Your task to perform on an android device: Clear the cart on ebay.com. Search for macbook pro on ebay.com, select the first entry, and add it to the cart. Image 0: 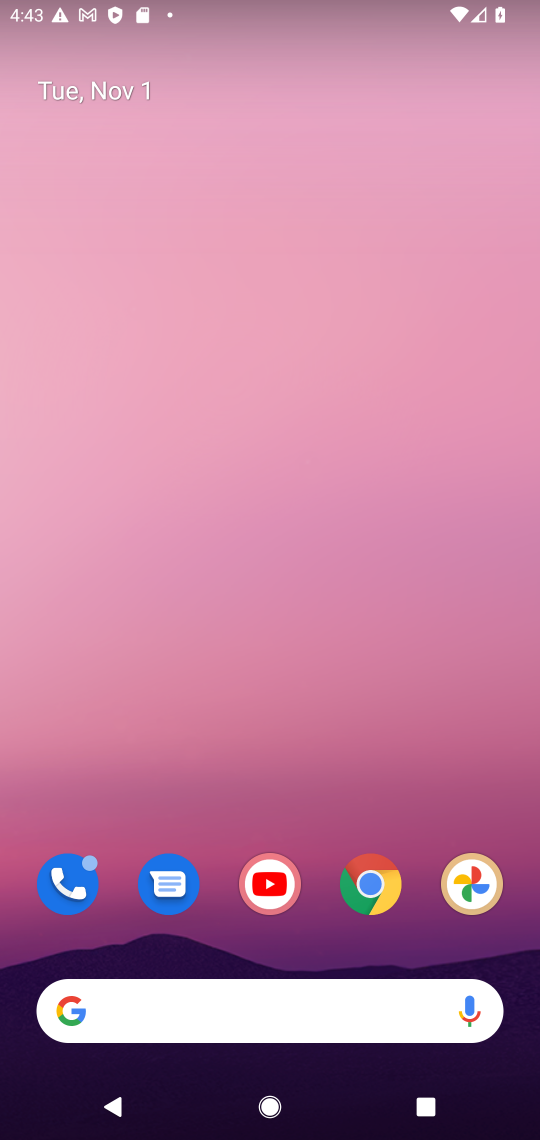
Step 0: click (382, 877)
Your task to perform on an android device: Clear the cart on ebay.com. Search for macbook pro on ebay.com, select the first entry, and add it to the cart. Image 1: 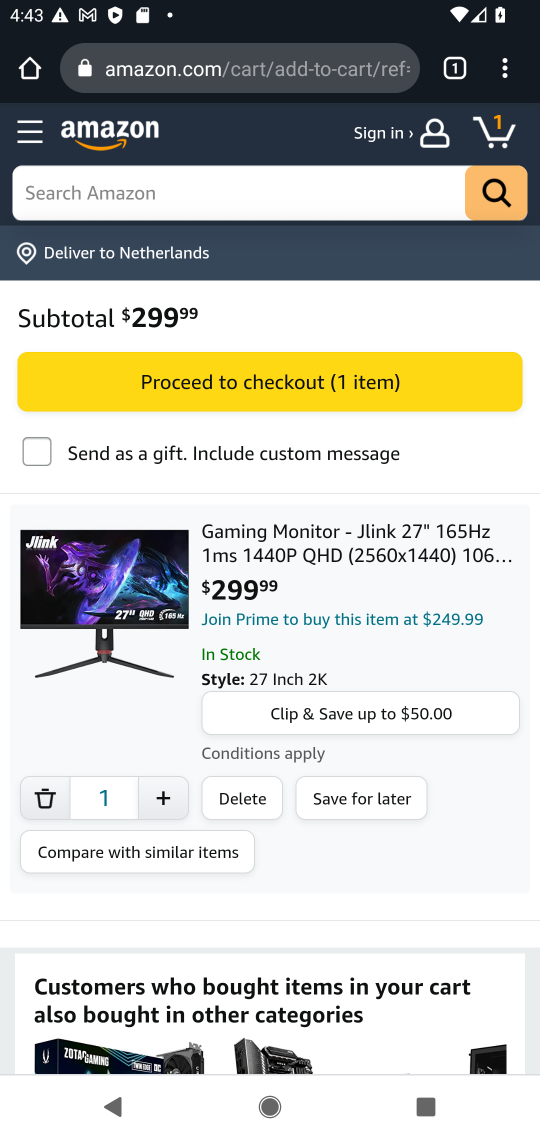
Step 1: click (241, 52)
Your task to perform on an android device: Clear the cart on ebay.com. Search for macbook pro on ebay.com, select the first entry, and add it to the cart. Image 2: 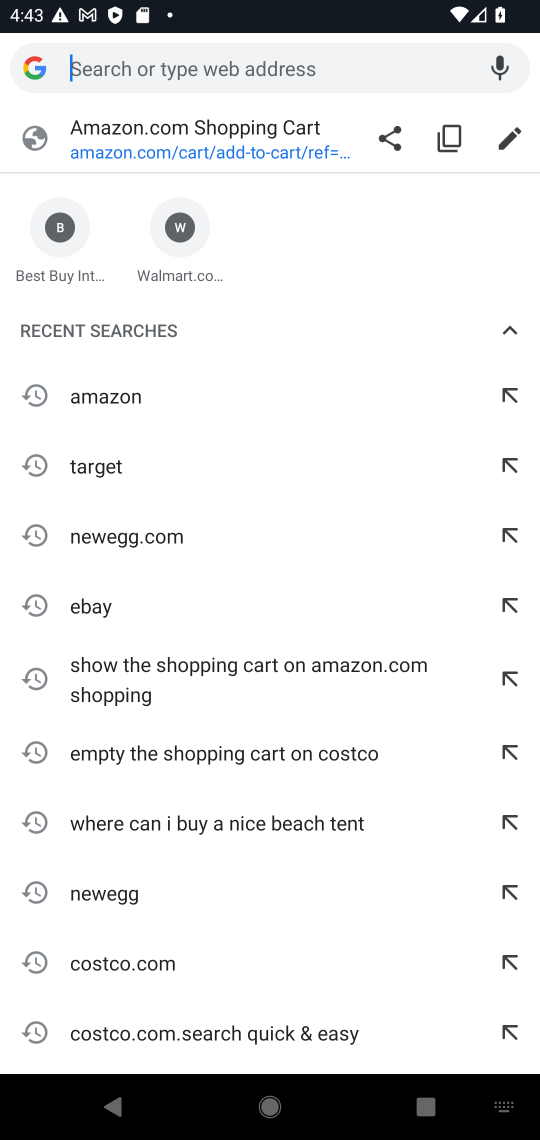
Step 2: type "ebay.com"
Your task to perform on an android device: Clear the cart on ebay.com. Search for macbook pro on ebay.com, select the first entry, and add it to the cart. Image 3: 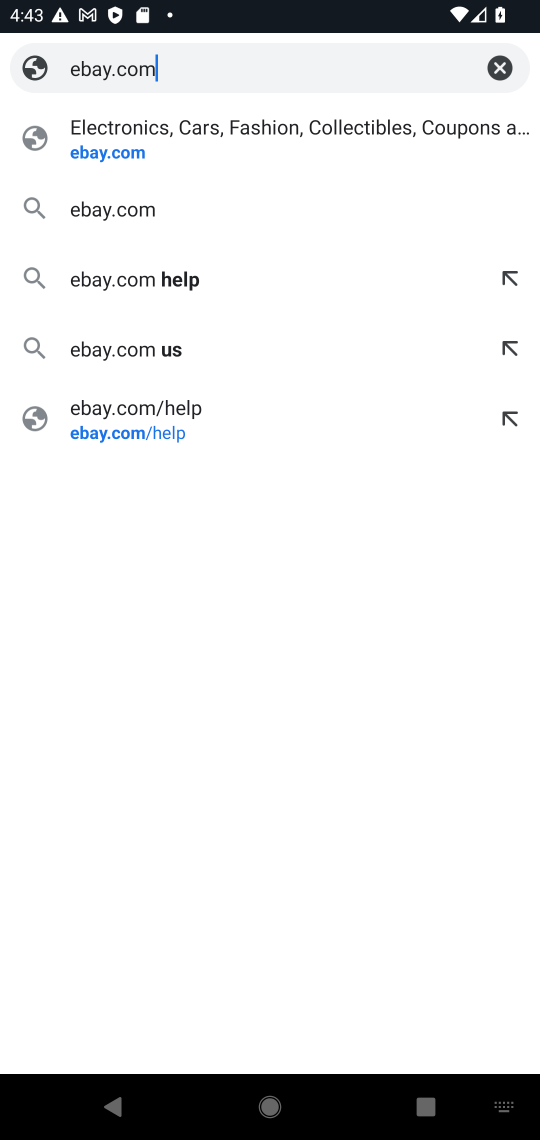
Step 3: click (251, 140)
Your task to perform on an android device: Clear the cart on ebay.com. Search for macbook pro on ebay.com, select the first entry, and add it to the cart. Image 4: 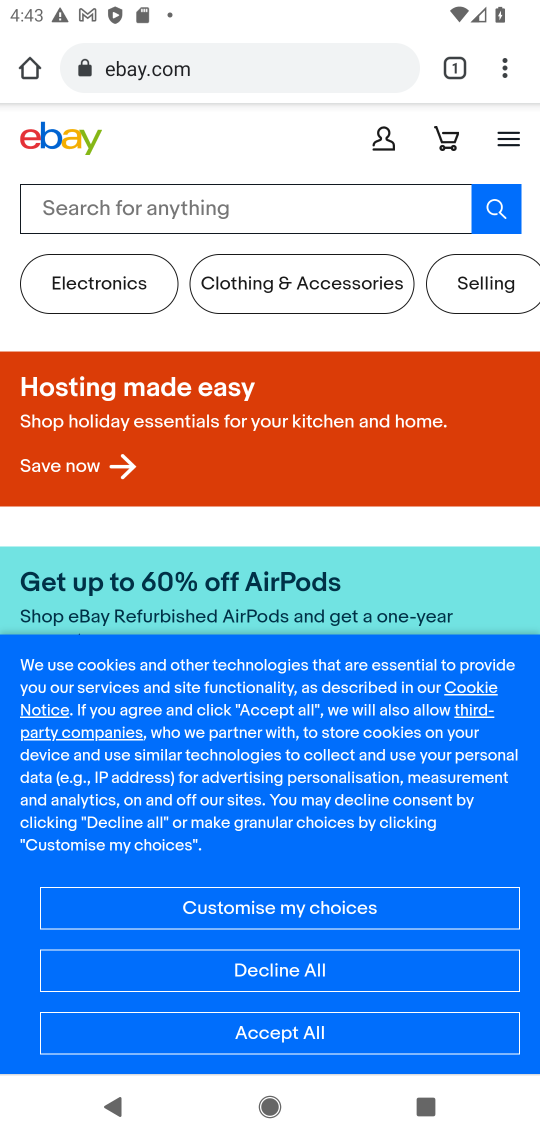
Step 4: click (372, 1030)
Your task to perform on an android device: Clear the cart on ebay.com. Search for macbook pro on ebay.com, select the first entry, and add it to the cart. Image 5: 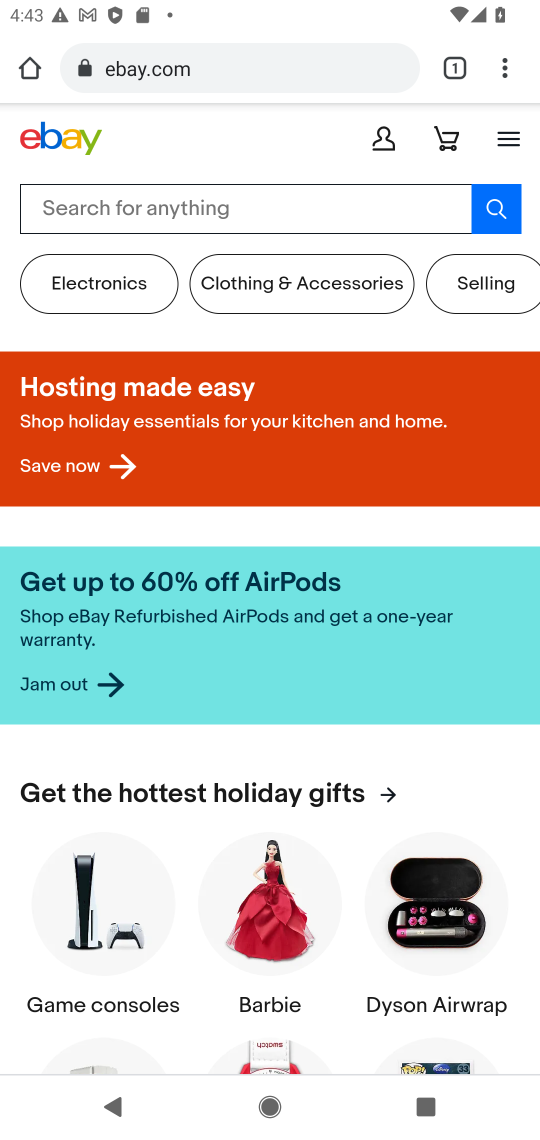
Step 5: click (428, 134)
Your task to perform on an android device: Clear the cart on ebay.com. Search for macbook pro on ebay.com, select the first entry, and add it to the cart. Image 6: 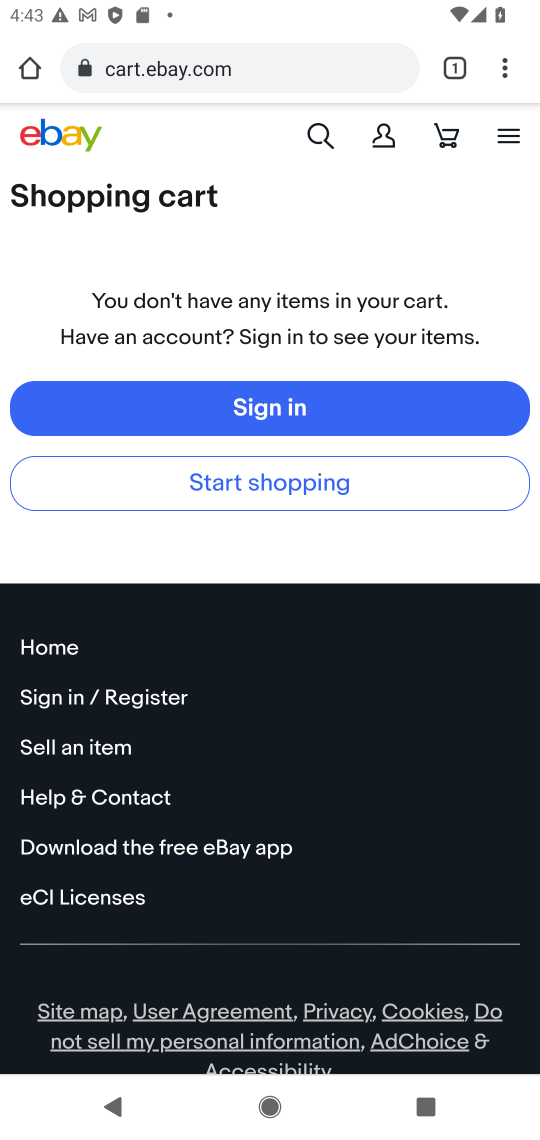
Step 6: click (311, 121)
Your task to perform on an android device: Clear the cart on ebay.com. Search for macbook pro on ebay.com, select the first entry, and add it to the cart. Image 7: 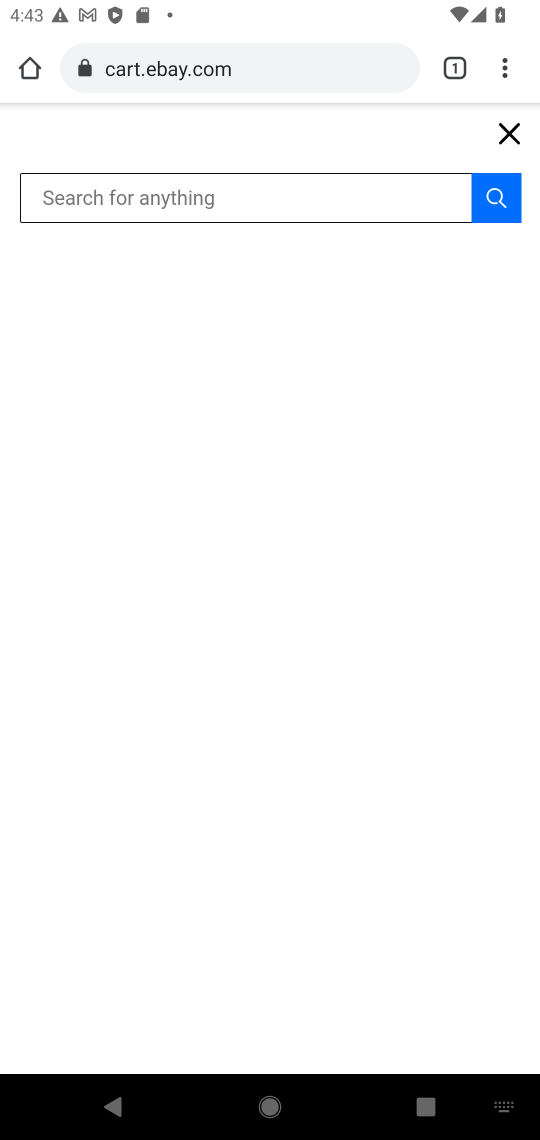
Step 7: type "macbook pro"
Your task to perform on an android device: Clear the cart on ebay.com. Search for macbook pro on ebay.com, select the first entry, and add it to the cart. Image 8: 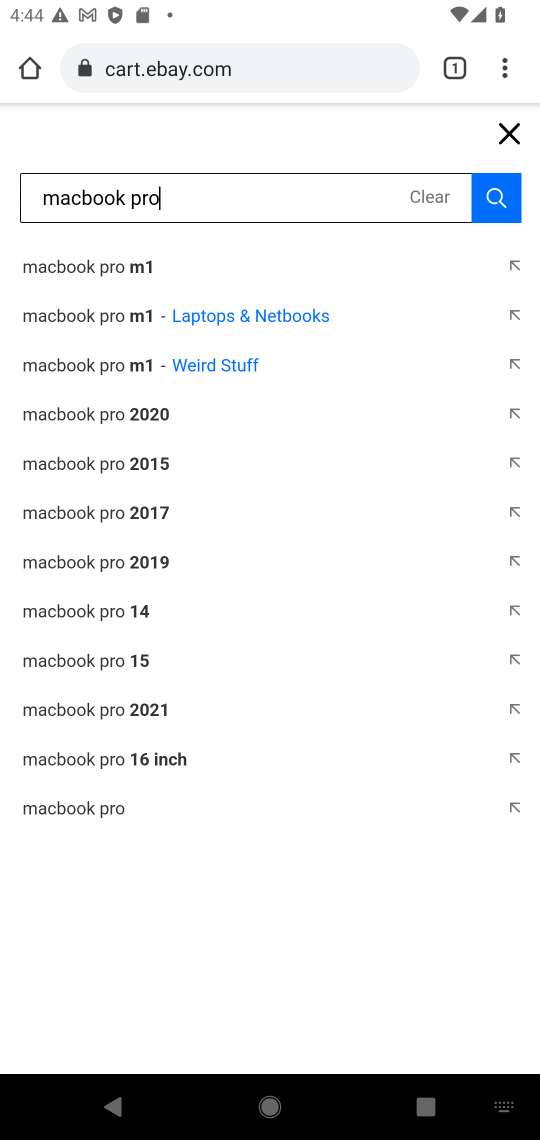
Step 8: click (487, 191)
Your task to perform on an android device: Clear the cart on ebay.com. Search for macbook pro on ebay.com, select the first entry, and add it to the cart. Image 9: 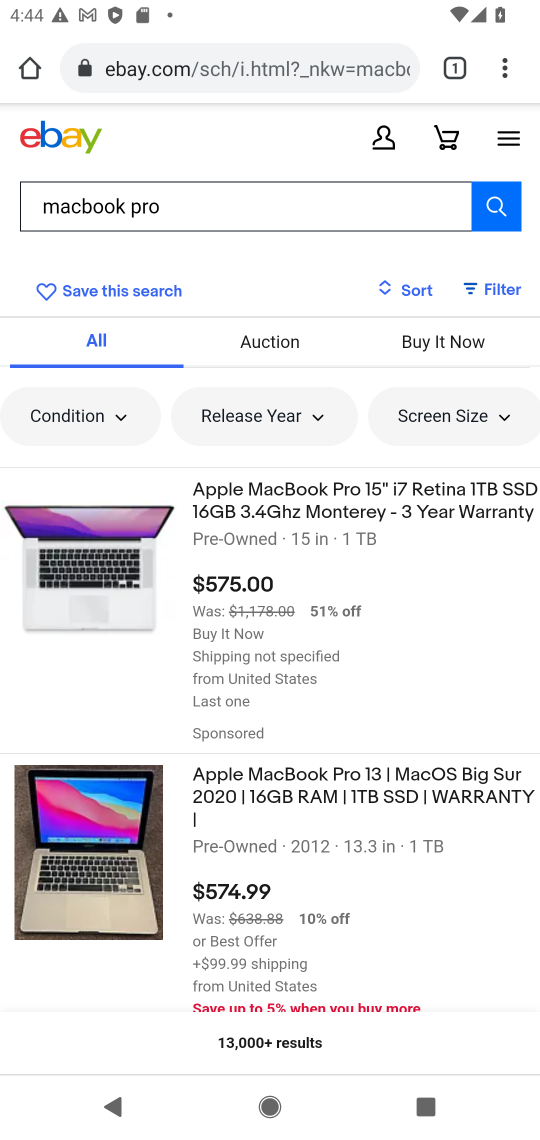
Step 9: click (282, 530)
Your task to perform on an android device: Clear the cart on ebay.com. Search for macbook pro on ebay.com, select the first entry, and add it to the cart. Image 10: 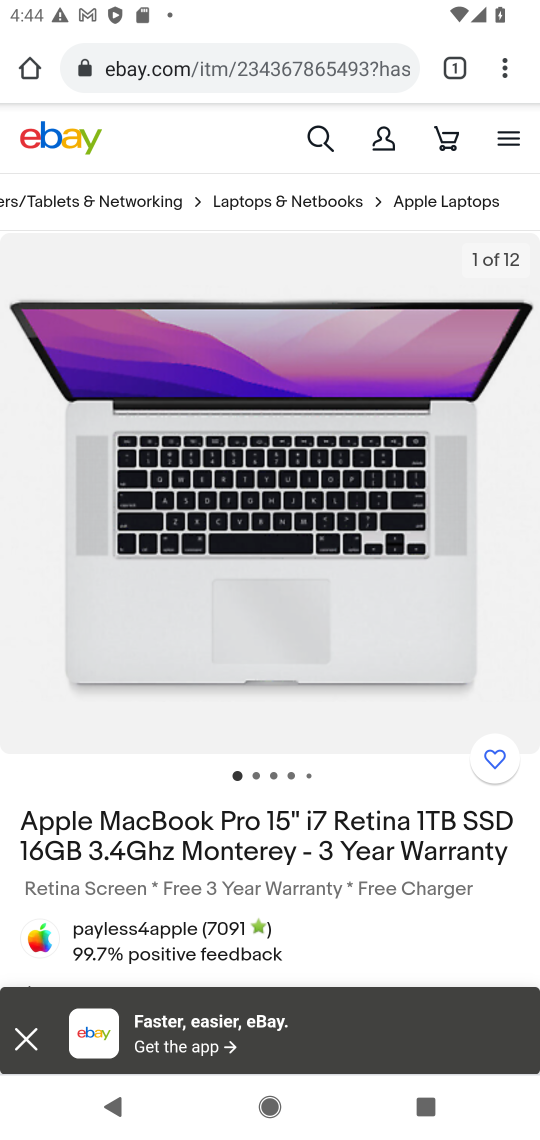
Step 10: drag from (269, 963) to (273, 641)
Your task to perform on an android device: Clear the cart on ebay.com. Search for macbook pro on ebay.com, select the first entry, and add it to the cart. Image 11: 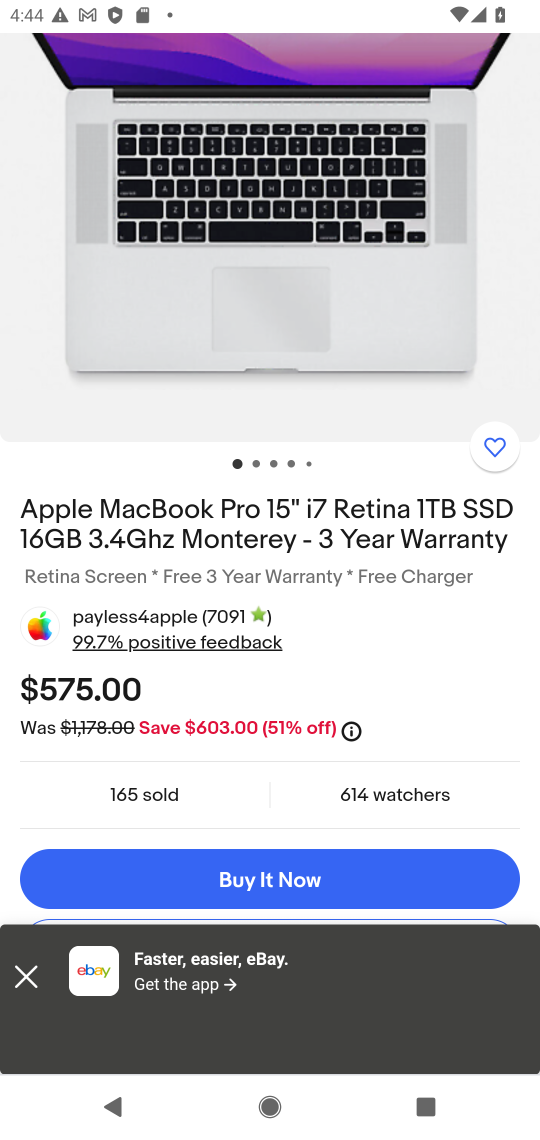
Step 11: click (25, 974)
Your task to perform on an android device: Clear the cart on ebay.com. Search for macbook pro on ebay.com, select the first entry, and add it to the cart. Image 12: 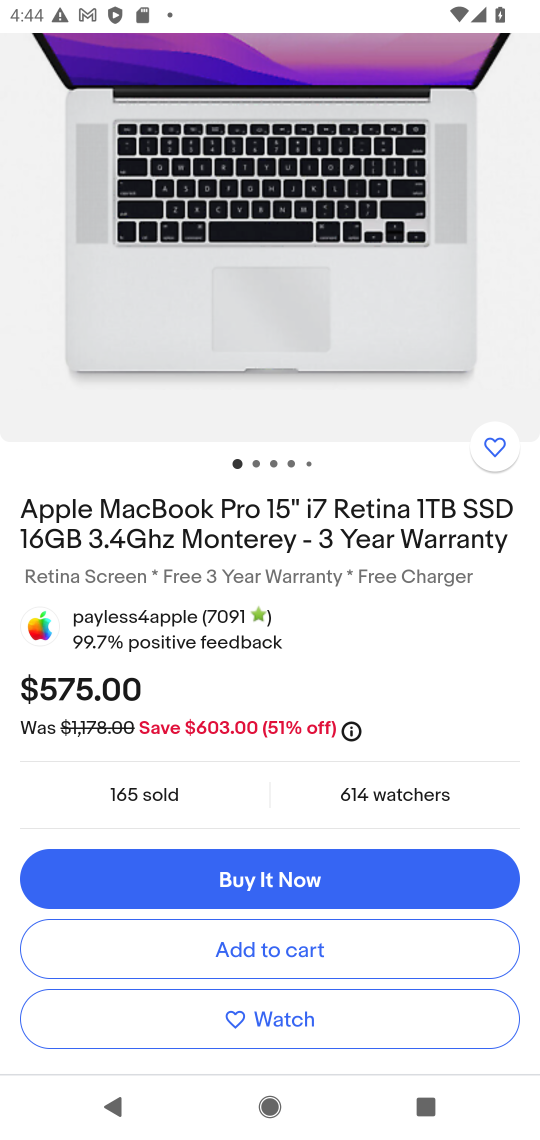
Step 12: click (298, 941)
Your task to perform on an android device: Clear the cart on ebay.com. Search for macbook pro on ebay.com, select the first entry, and add it to the cart. Image 13: 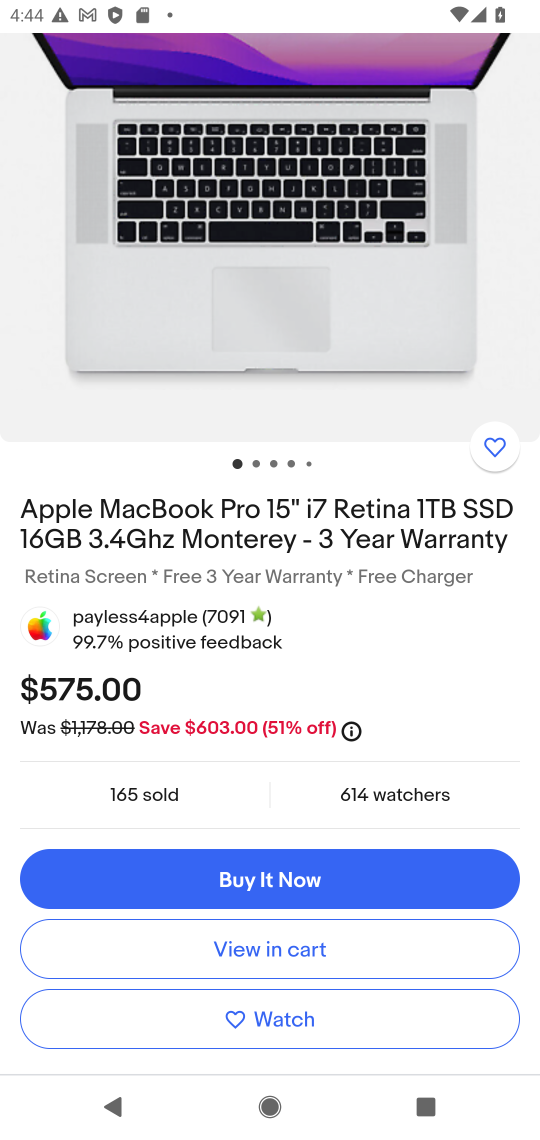
Step 13: task complete